Your task to perform on an android device: Open the phone app and click the voicemail tab. Image 0: 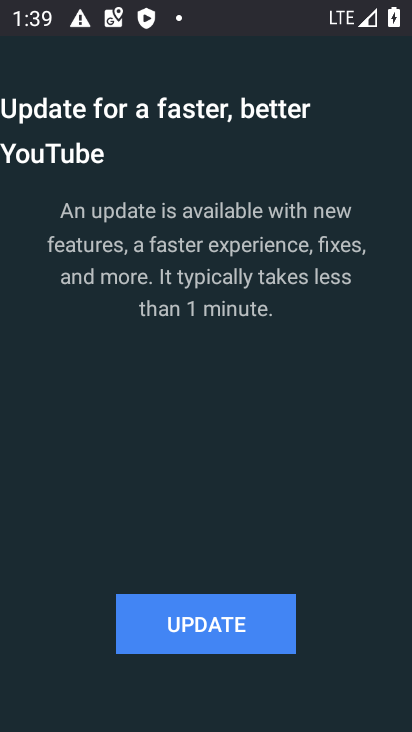
Step 0: press home button
Your task to perform on an android device: Open the phone app and click the voicemail tab. Image 1: 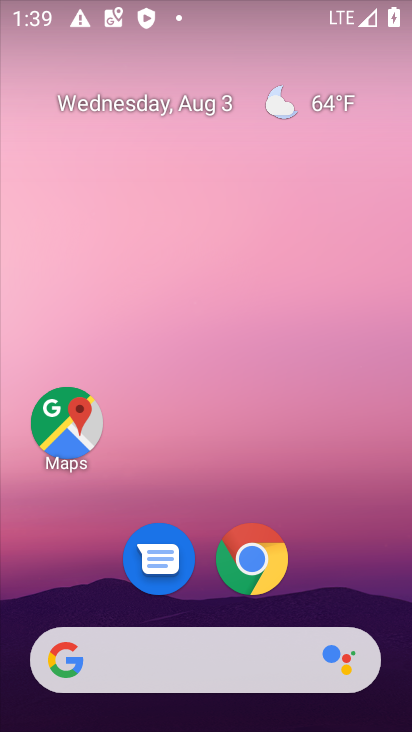
Step 1: drag from (214, 558) to (230, 118)
Your task to perform on an android device: Open the phone app and click the voicemail tab. Image 2: 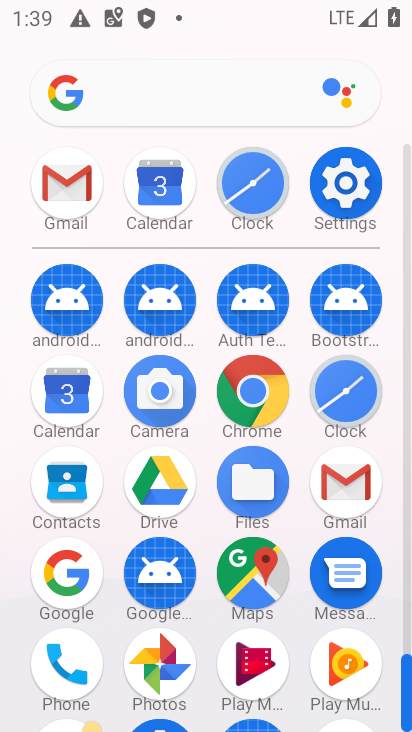
Step 2: click (82, 661)
Your task to perform on an android device: Open the phone app and click the voicemail tab. Image 3: 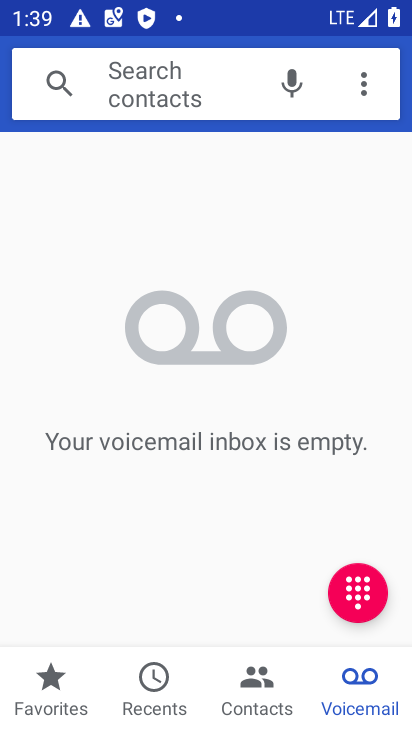
Step 3: task complete